Your task to perform on an android device: Go to Yahoo.com Image 0: 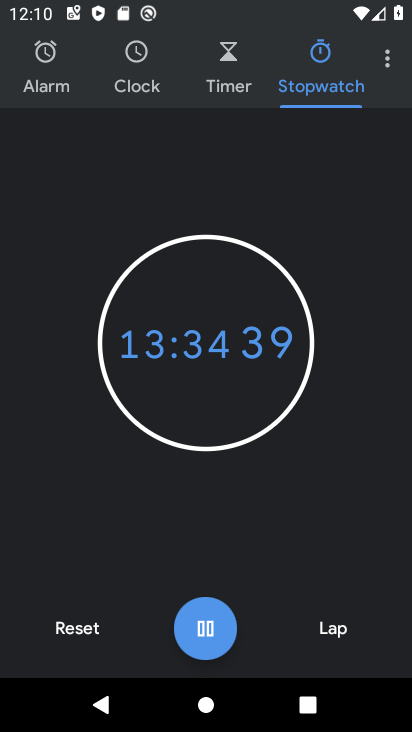
Step 0: press home button
Your task to perform on an android device: Go to Yahoo.com Image 1: 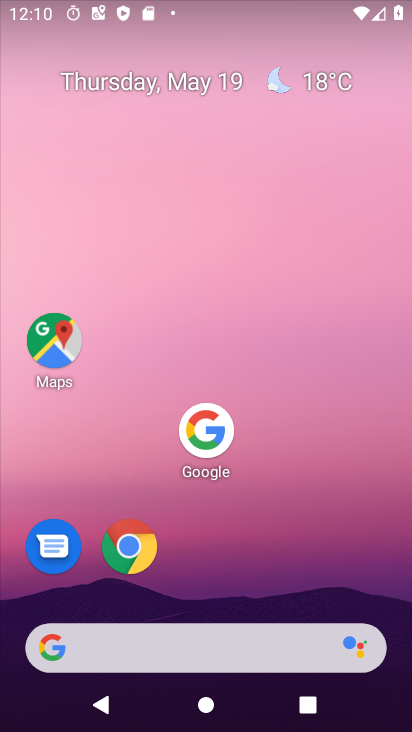
Step 1: click (132, 549)
Your task to perform on an android device: Go to Yahoo.com Image 2: 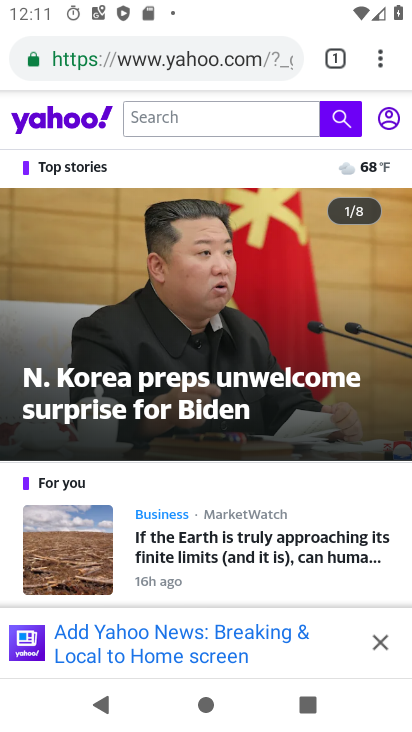
Step 2: task complete